Your task to perform on an android device: check storage Image 0: 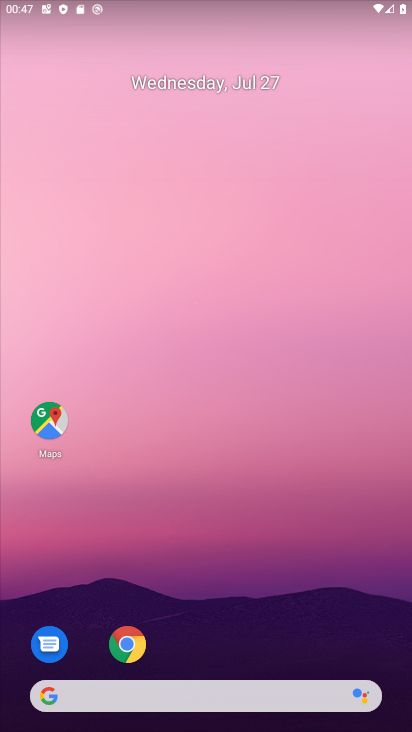
Step 0: drag from (228, 539) to (176, 222)
Your task to perform on an android device: check storage Image 1: 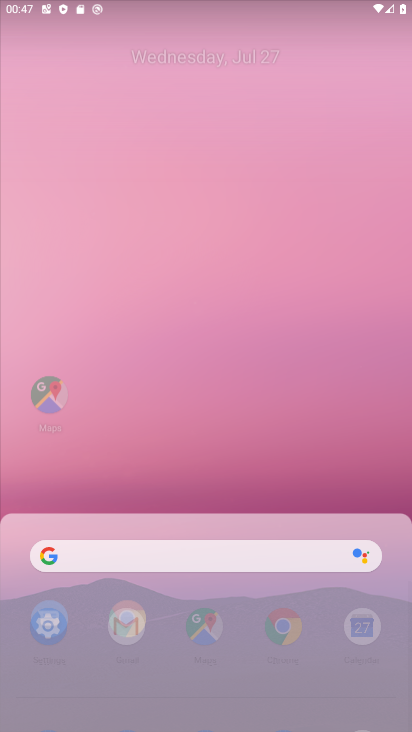
Step 1: drag from (185, 552) to (151, 211)
Your task to perform on an android device: check storage Image 2: 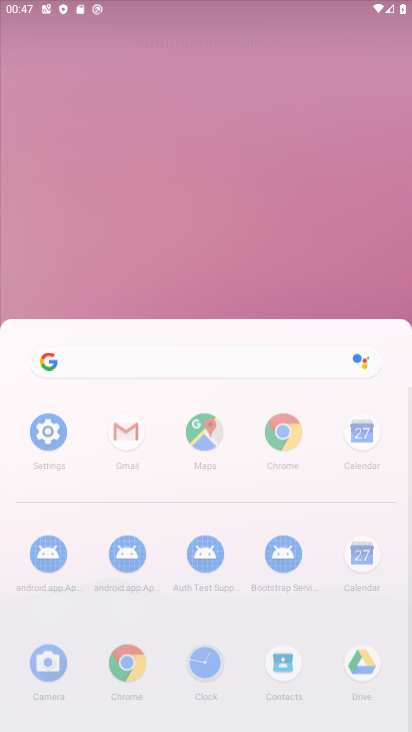
Step 2: drag from (181, 537) to (174, 115)
Your task to perform on an android device: check storage Image 3: 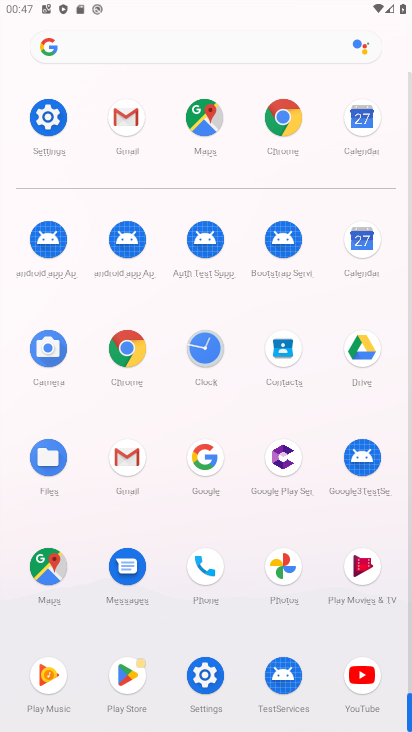
Step 3: click (55, 115)
Your task to perform on an android device: check storage Image 4: 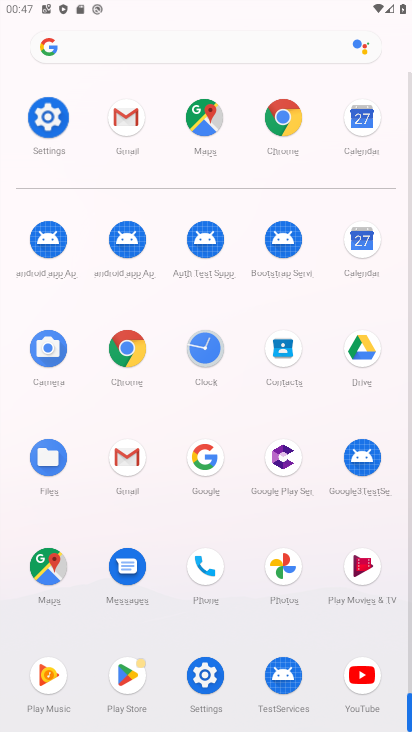
Step 4: click (51, 115)
Your task to perform on an android device: check storage Image 5: 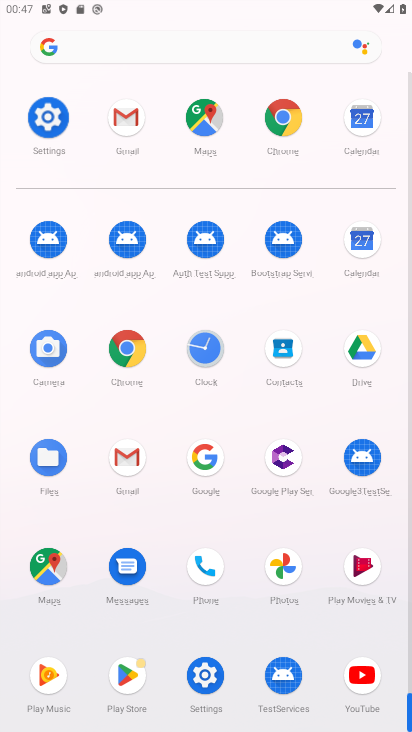
Step 5: click (50, 115)
Your task to perform on an android device: check storage Image 6: 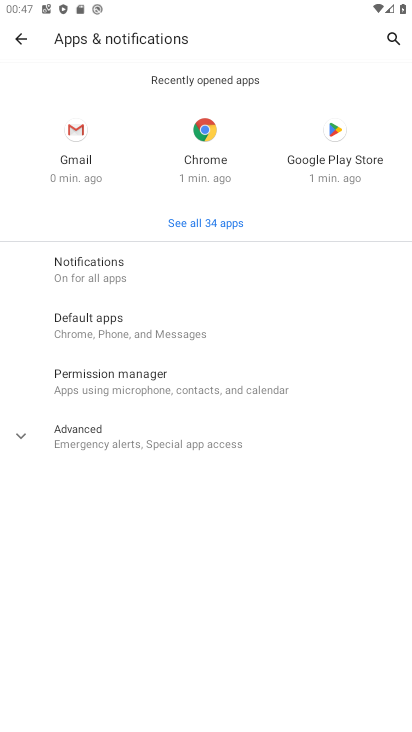
Step 6: click (29, 45)
Your task to perform on an android device: check storage Image 7: 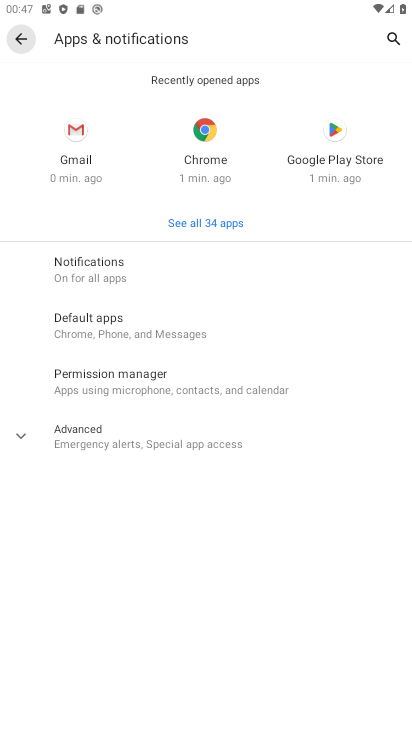
Step 7: click (27, 42)
Your task to perform on an android device: check storage Image 8: 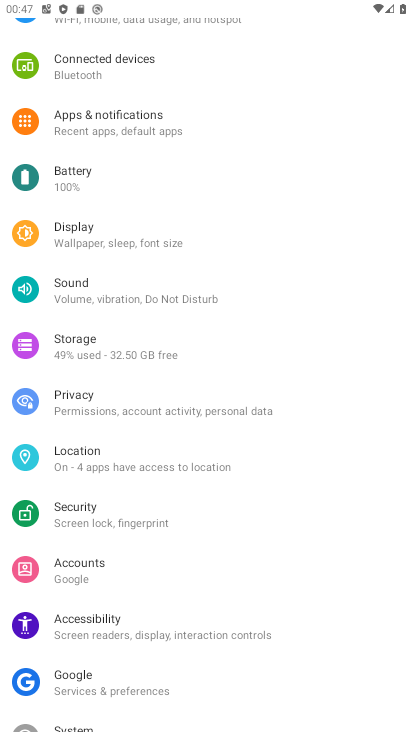
Step 8: click (95, 341)
Your task to perform on an android device: check storage Image 9: 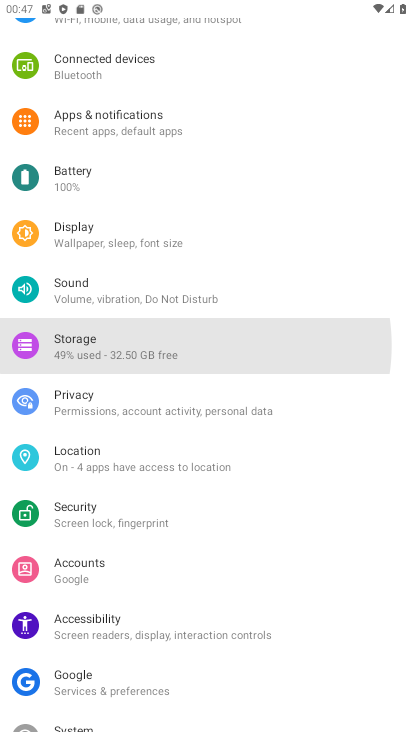
Step 9: click (95, 341)
Your task to perform on an android device: check storage Image 10: 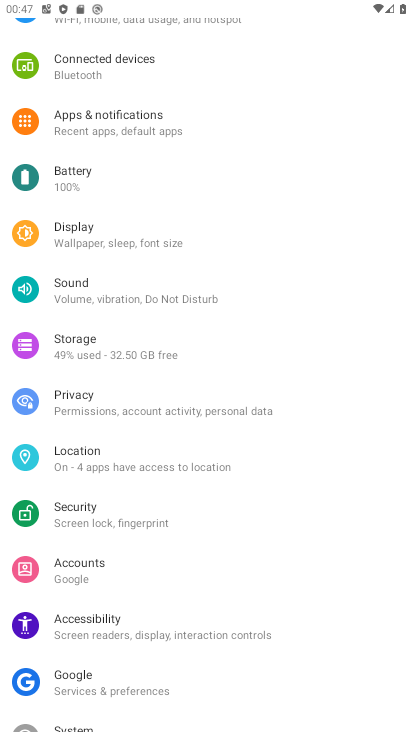
Step 10: click (94, 341)
Your task to perform on an android device: check storage Image 11: 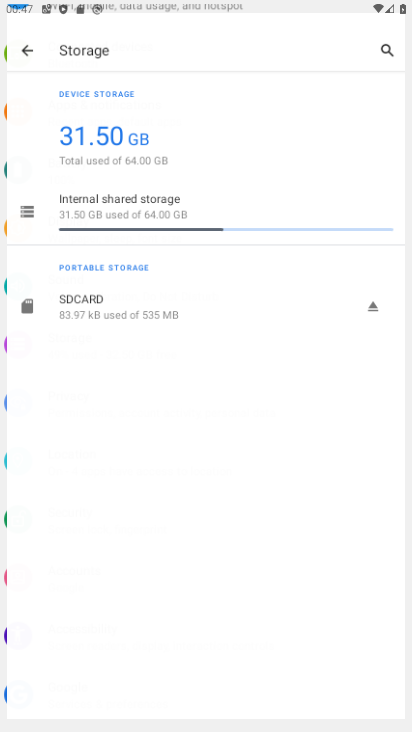
Step 11: click (92, 341)
Your task to perform on an android device: check storage Image 12: 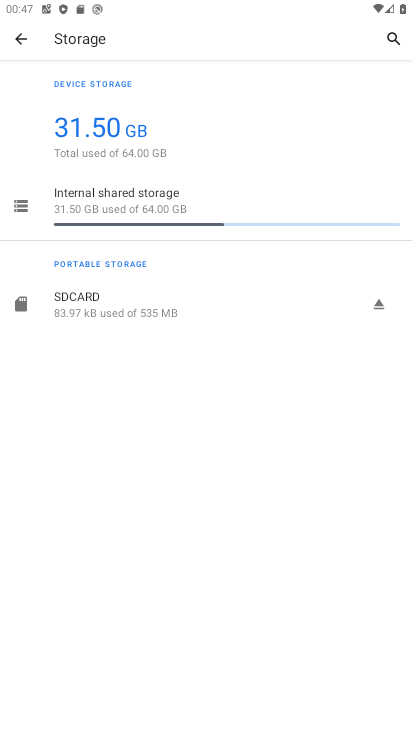
Step 12: click (92, 341)
Your task to perform on an android device: check storage Image 13: 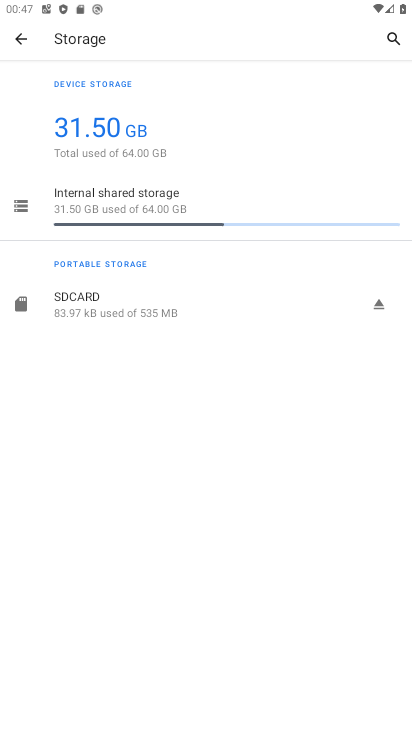
Step 13: task complete